Your task to perform on an android device: What's the weather today? Image 0: 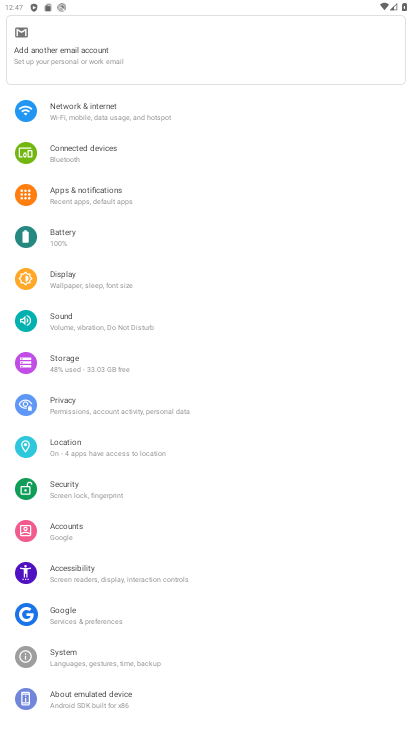
Step 0: press home button
Your task to perform on an android device: What's the weather today? Image 1: 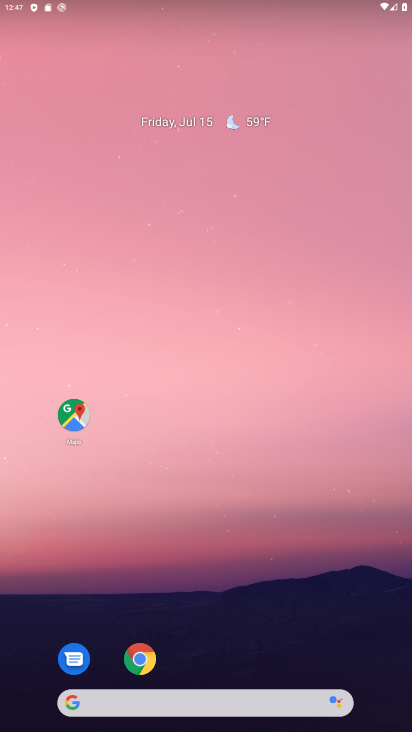
Step 1: drag from (218, 634) to (248, 140)
Your task to perform on an android device: What's the weather today? Image 2: 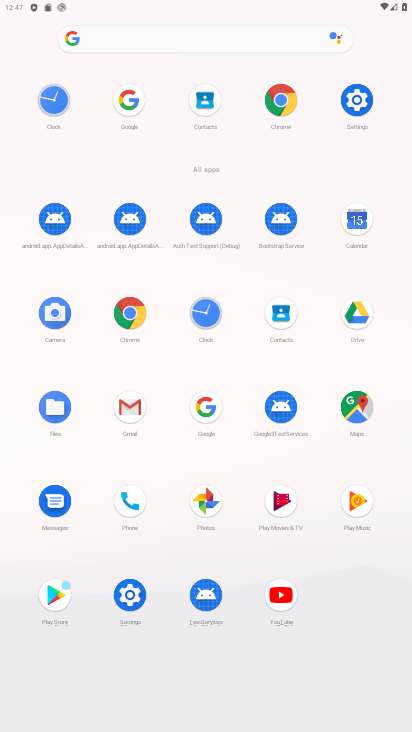
Step 2: click (204, 409)
Your task to perform on an android device: What's the weather today? Image 3: 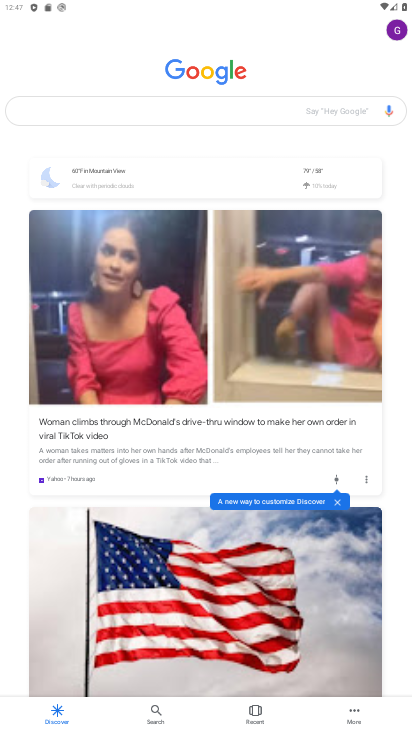
Step 3: click (200, 116)
Your task to perform on an android device: What's the weather today? Image 4: 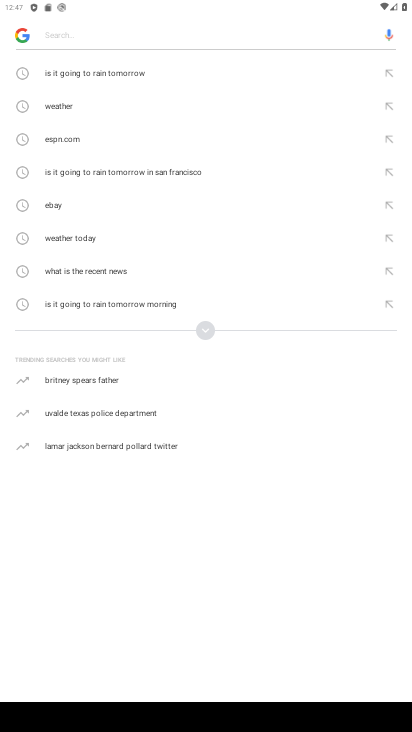
Step 4: click (72, 242)
Your task to perform on an android device: What's the weather today? Image 5: 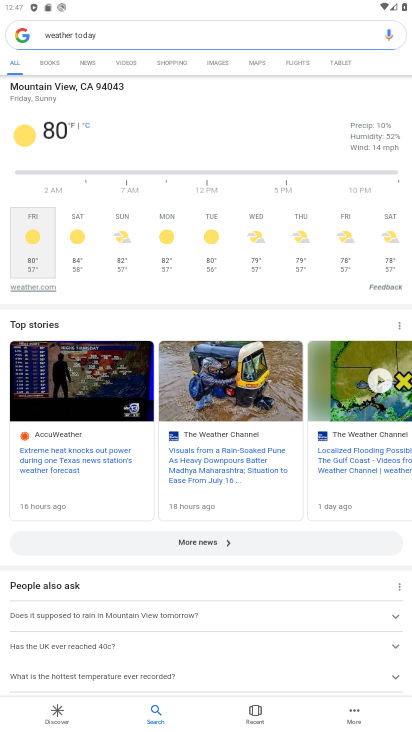
Step 5: task complete